Your task to perform on an android device: refresh tabs in the chrome app Image 0: 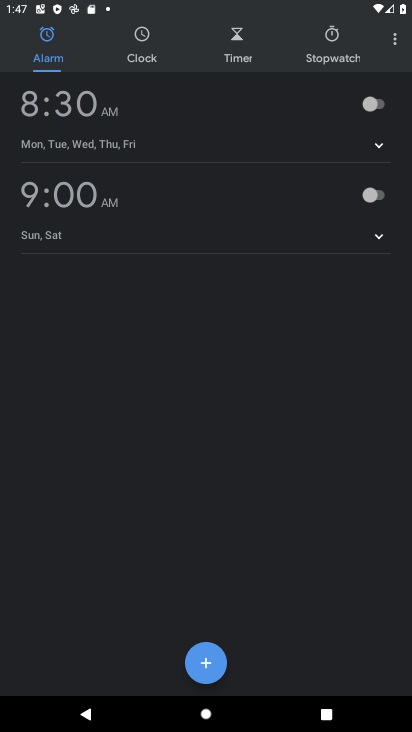
Step 0: press home button
Your task to perform on an android device: refresh tabs in the chrome app Image 1: 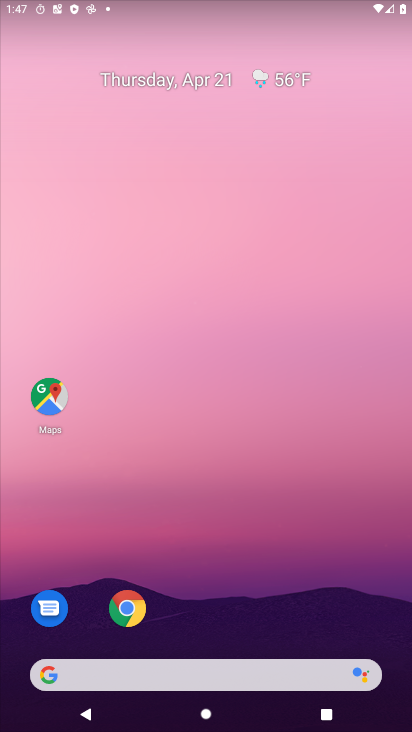
Step 1: click (131, 606)
Your task to perform on an android device: refresh tabs in the chrome app Image 2: 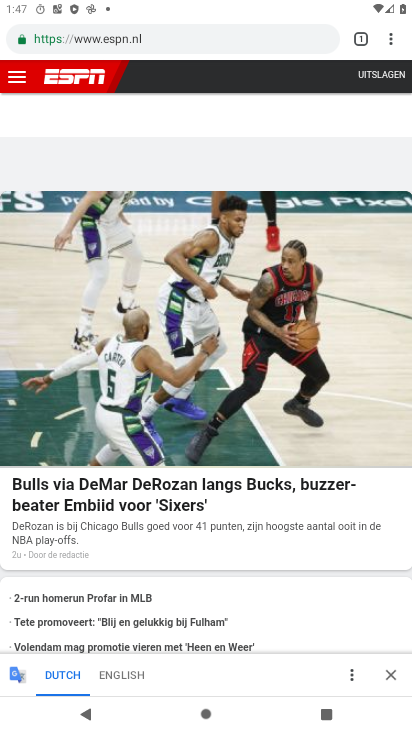
Step 2: click (391, 39)
Your task to perform on an android device: refresh tabs in the chrome app Image 3: 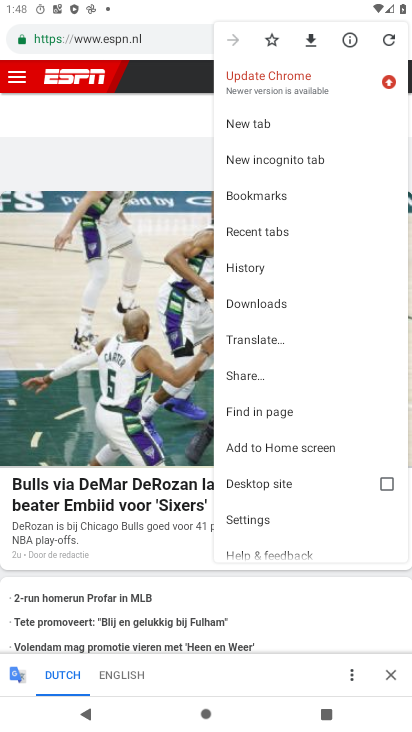
Step 3: click (392, 38)
Your task to perform on an android device: refresh tabs in the chrome app Image 4: 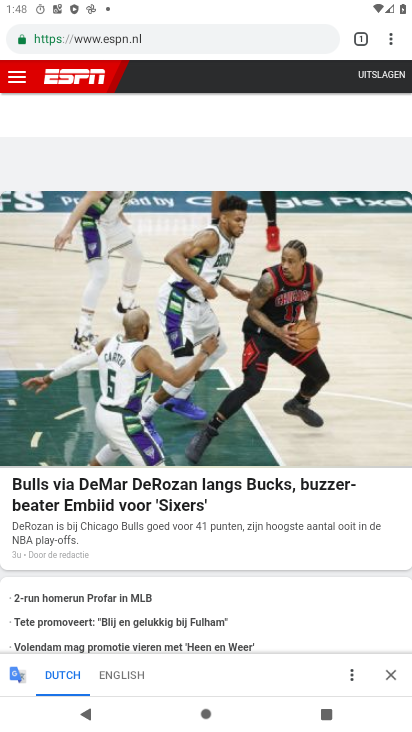
Step 4: task complete